Your task to perform on an android device: change the clock display to show seconds Image 0: 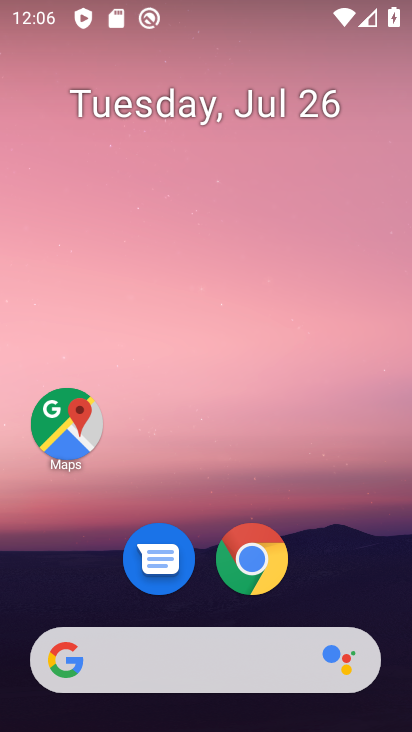
Step 0: click (277, 11)
Your task to perform on an android device: change the clock display to show seconds Image 1: 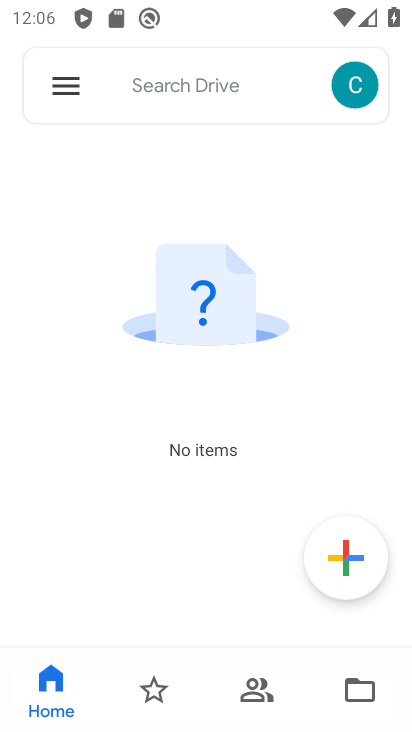
Step 1: press back button
Your task to perform on an android device: change the clock display to show seconds Image 2: 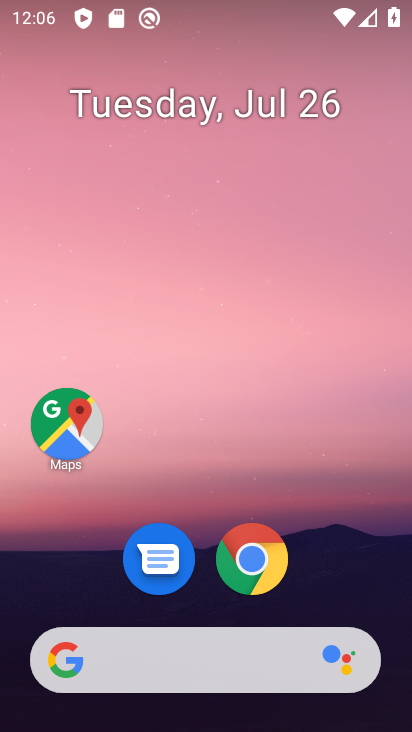
Step 2: drag from (29, 541) to (162, 47)
Your task to perform on an android device: change the clock display to show seconds Image 3: 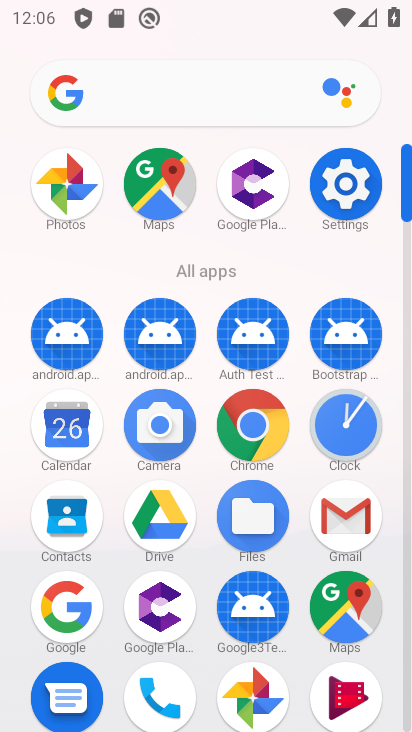
Step 3: click (351, 441)
Your task to perform on an android device: change the clock display to show seconds Image 4: 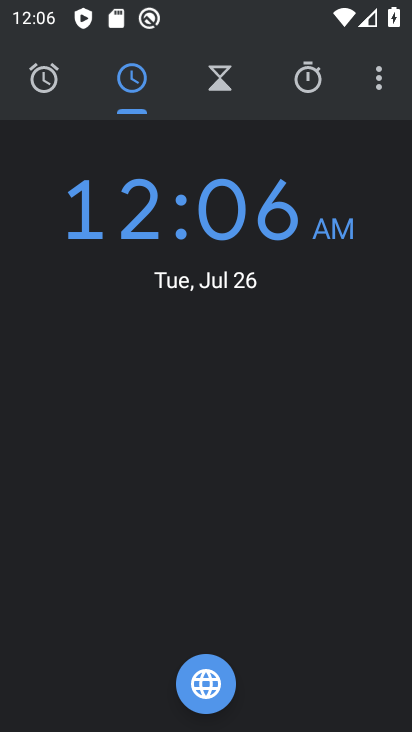
Step 4: click (379, 76)
Your task to perform on an android device: change the clock display to show seconds Image 5: 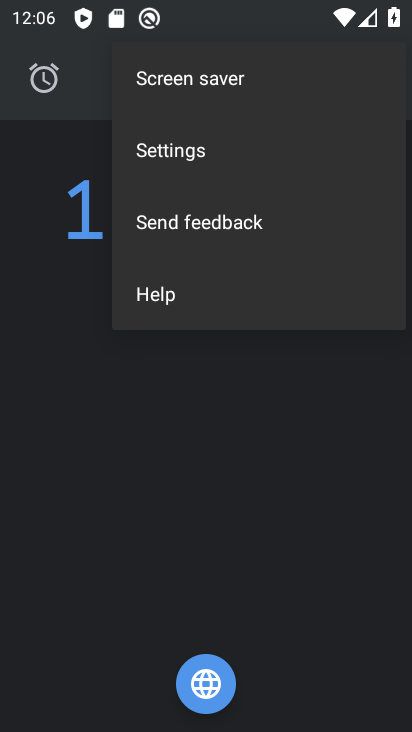
Step 5: click (151, 149)
Your task to perform on an android device: change the clock display to show seconds Image 6: 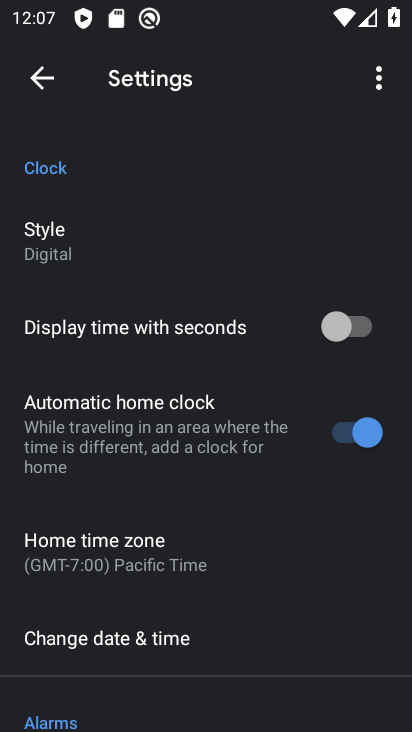
Step 6: click (356, 328)
Your task to perform on an android device: change the clock display to show seconds Image 7: 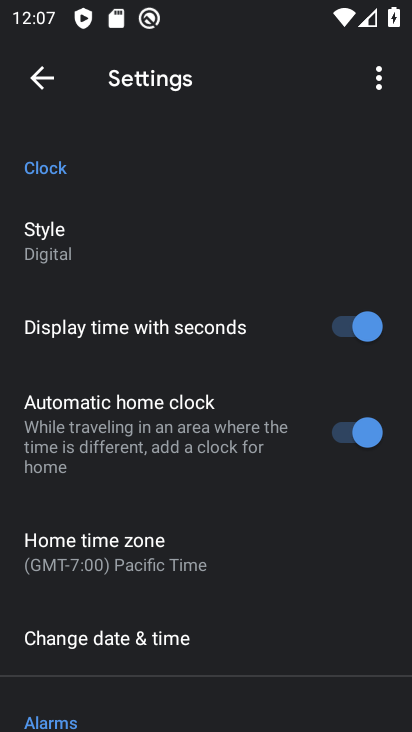
Step 7: task complete